Your task to perform on an android device: Go to notification settings Image 0: 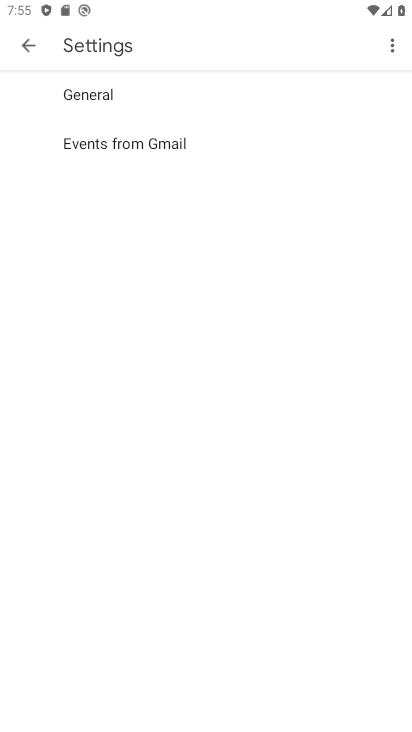
Step 0: press home button
Your task to perform on an android device: Go to notification settings Image 1: 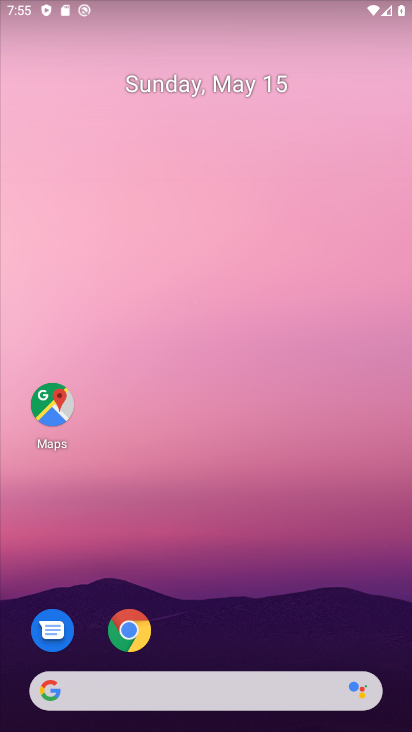
Step 1: drag from (212, 548) to (344, 2)
Your task to perform on an android device: Go to notification settings Image 2: 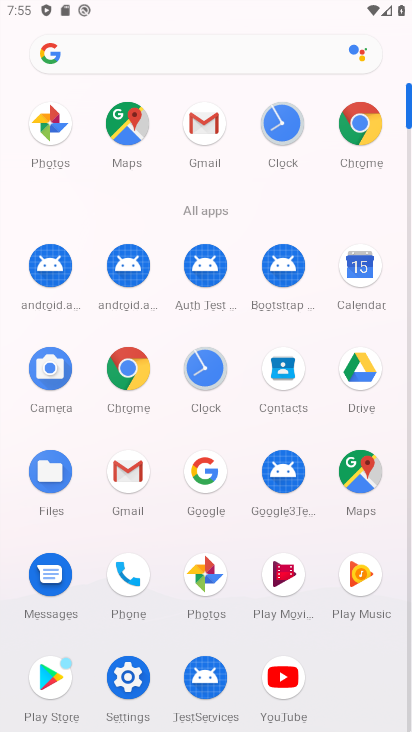
Step 2: drag from (249, 524) to (230, 1)
Your task to perform on an android device: Go to notification settings Image 3: 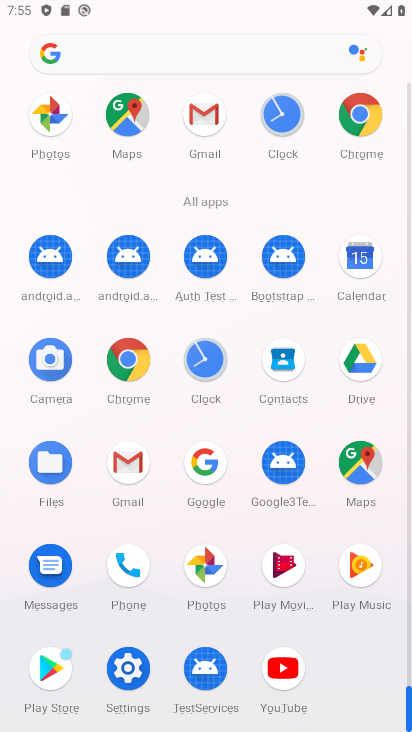
Step 3: click (130, 668)
Your task to perform on an android device: Go to notification settings Image 4: 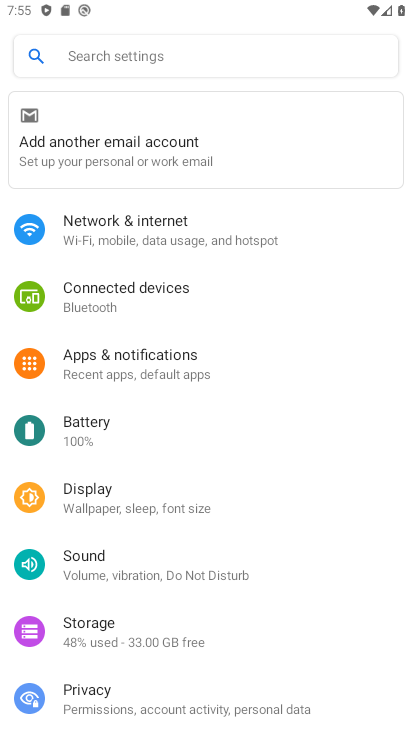
Step 4: click (160, 387)
Your task to perform on an android device: Go to notification settings Image 5: 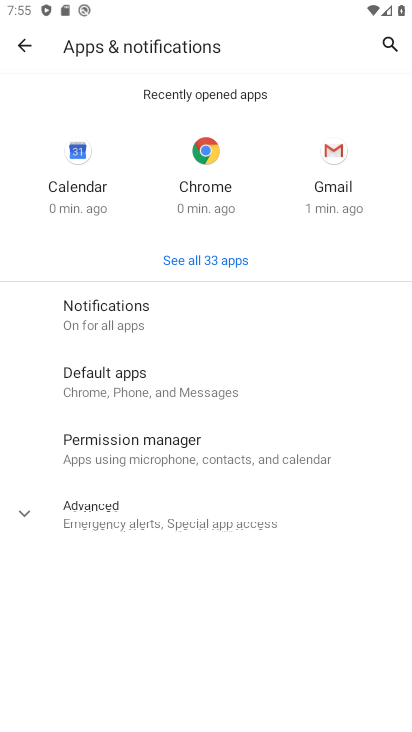
Step 5: click (105, 325)
Your task to perform on an android device: Go to notification settings Image 6: 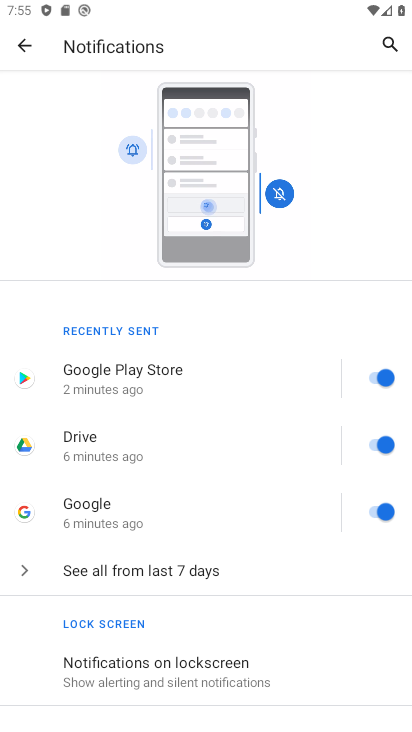
Step 6: task complete